Your task to perform on an android device: toggle show notifications on the lock screen Image 0: 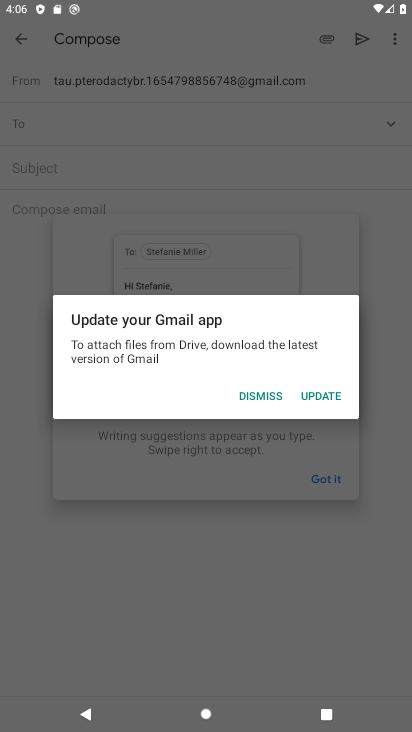
Step 0: press home button
Your task to perform on an android device: toggle show notifications on the lock screen Image 1: 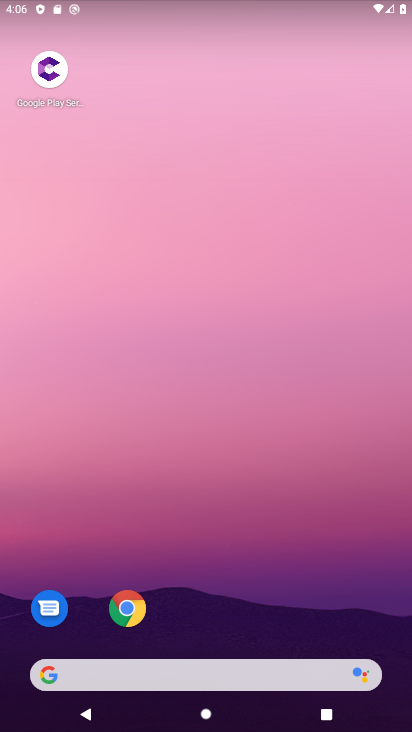
Step 1: drag from (253, 5) to (340, 599)
Your task to perform on an android device: toggle show notifications on the lock screen Image 2: 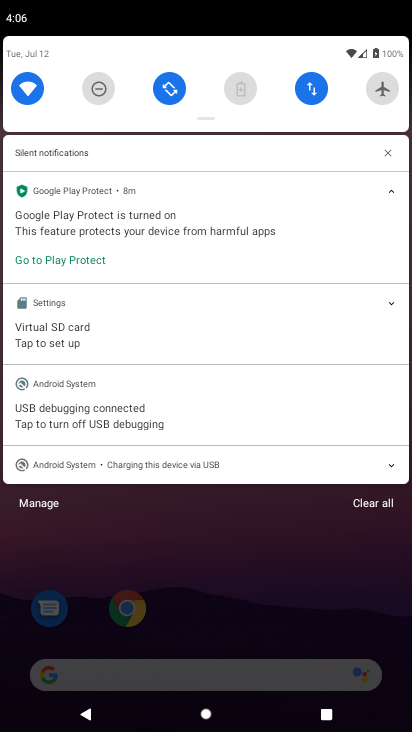
Step 2: drag from (206, 47) to (253, 438)
Your task to perform on an android device: toggle show notifications on the lock screen Image 3: 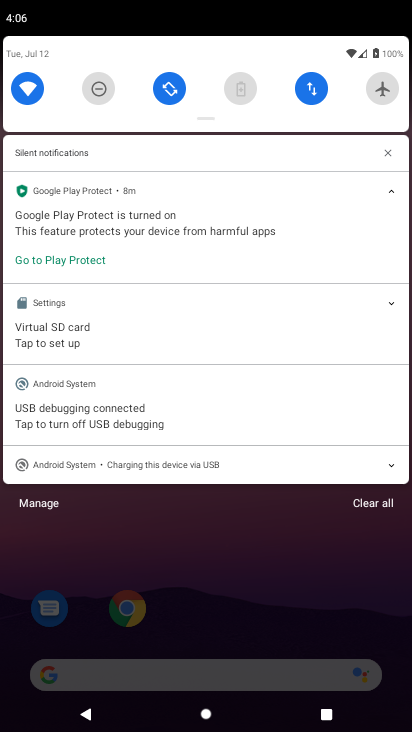
Step 3: drag from (344, 56) to (408, 435)
Your task to perform on an android device: toggle show notifications on the lock screen Image 4: 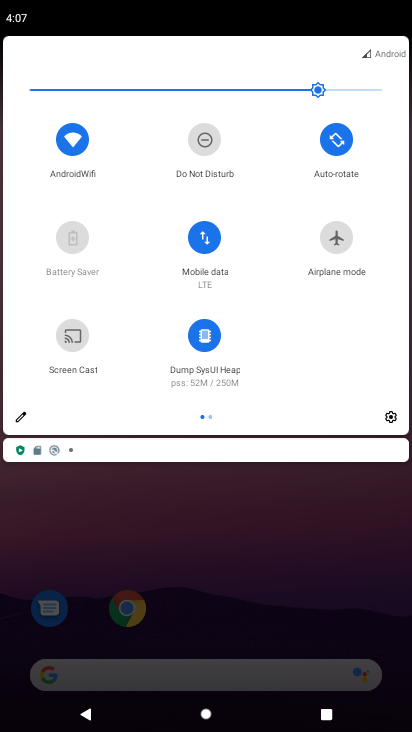
Step 4: click (387, 415)
Your task to perform on an android device: toggle show notifications on the lock screen Image 5: 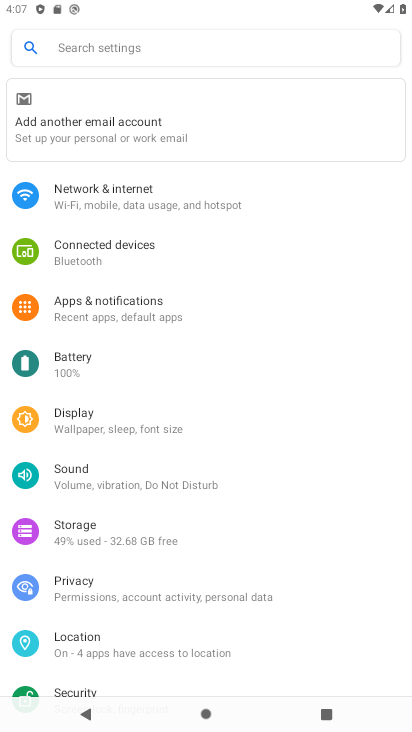
Step 5: click (127, 316)
Your task to perform on an android device: toggle show notifications on the lock screen Image 6: 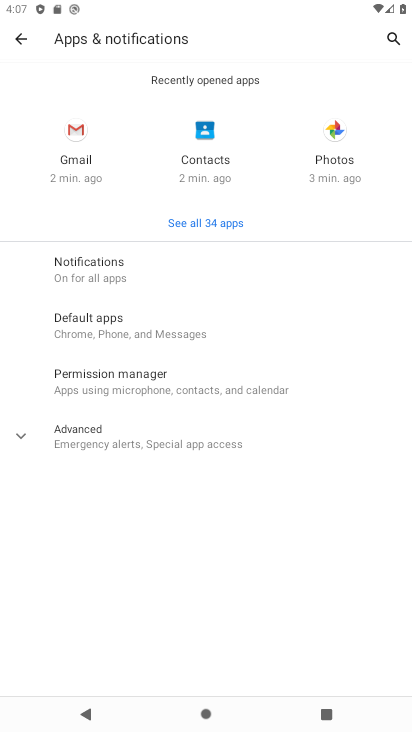
Step 6: click (123, 281)
Your task to perform on an android device: toggle show notifications on the lock screen Image 7: 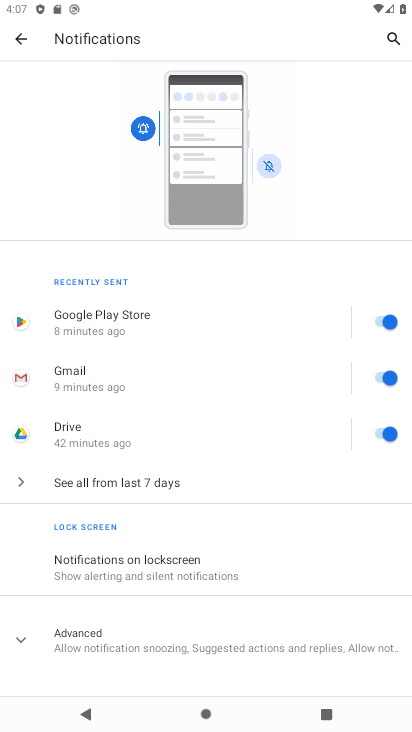
Step 7: click (237, 570)
Your task to perform on an android device: toggle show notifications on the lock screen Image 8: 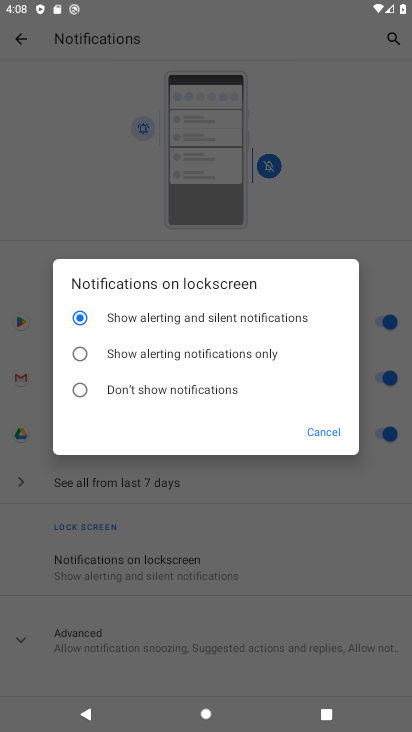
Step 8: click (194, 357)
Your task to perform on an android device: toggle show notifications on the lock screen Image 9: 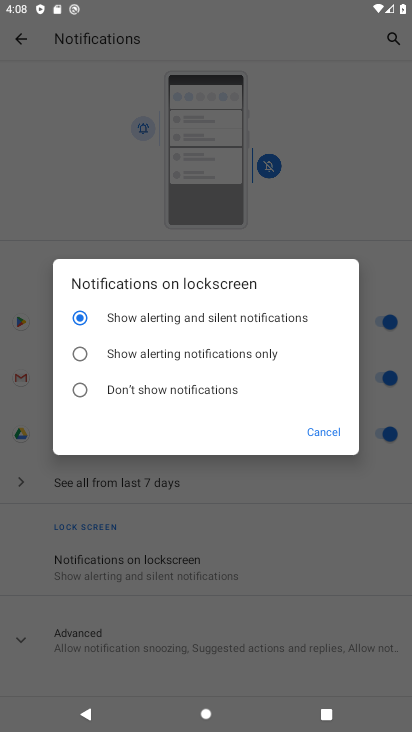
Step 9: task complete